Your task to perform on an android device: toggle javascript in the chrome app Image 0: 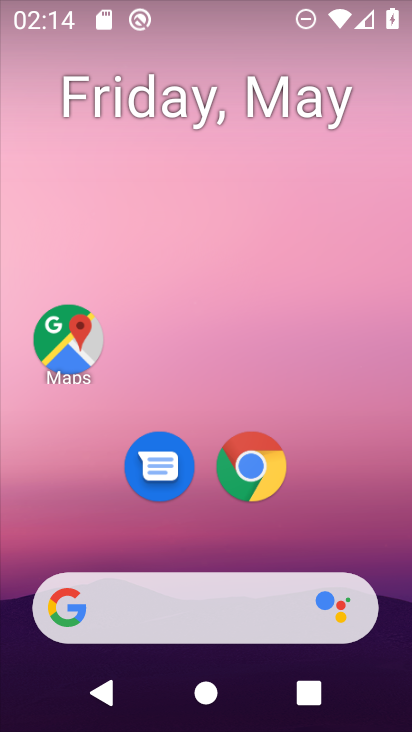
Step 0: drag from (314, 518) to (342, 139)
Your task to perform on an android device: toggle javascript in the chrome app Image 1: 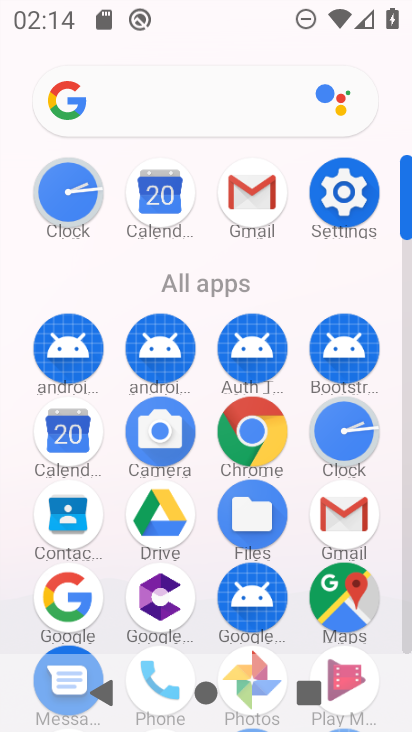
Step 1: click (341, 216)
Your task to perform on an android device: toggle javascript in the chrome app Image 2: 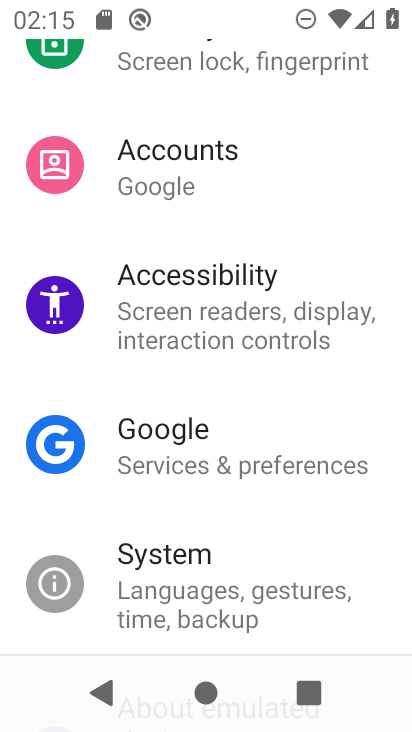
Step 2: drag from (215, 365) to (216, 495)
Your task to perform on an android device: toggle javascript in the chrome app Image 3: 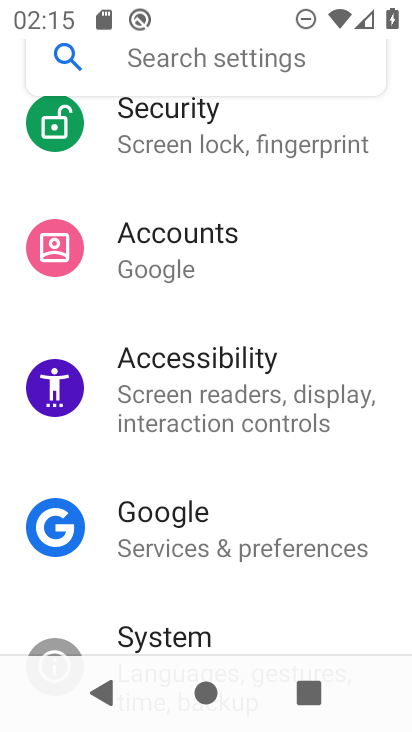
Step 3: press home button
Your task to perform on an android device: toggle javascript in the chrome app Image 4: 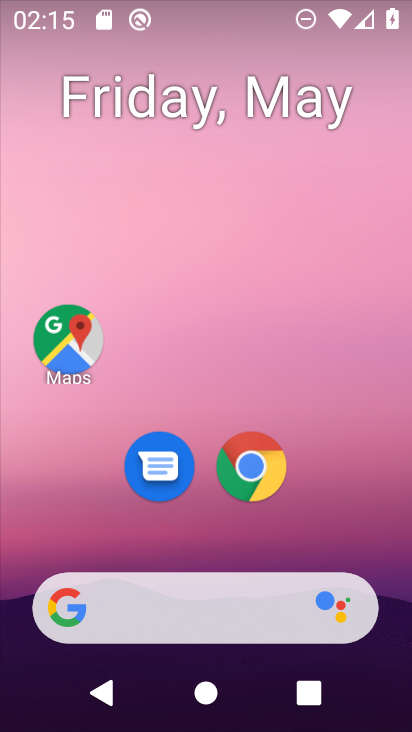
Step 4: click (250, 471)
Your task to perform on an android device: toggle javascript in the chrome app Image 5: 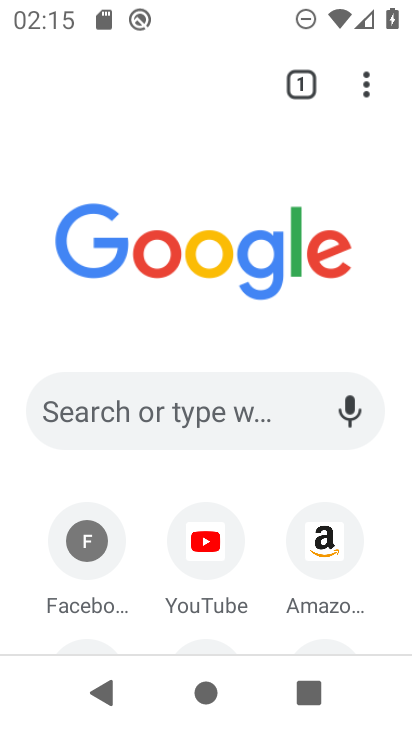
Step 5: click (362, 92)
Your task to perform on an android device: toggle javascript in the chrome app Image 6: 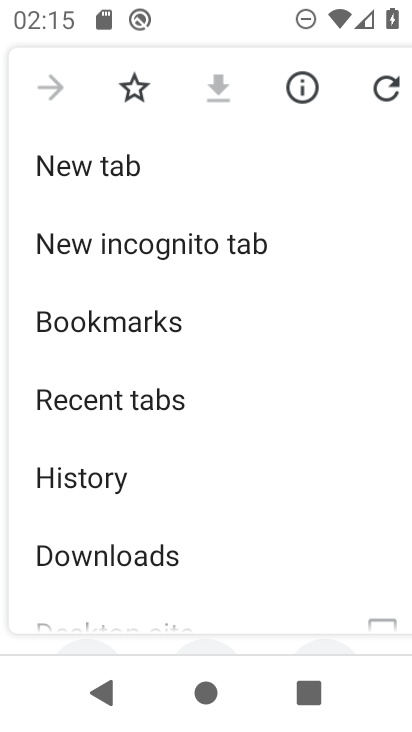
Step 6: drag from (197, 559) to (232, 324)
Your task to perform on an android device: toggle javascript in the chrome app Image 7: 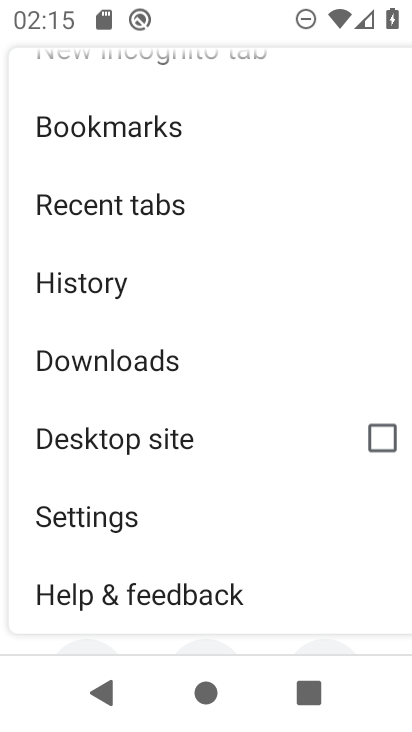
Step 7: click (216, 520)
Your task to perform on an android device: toggle javascript in the chrome app Image 8: 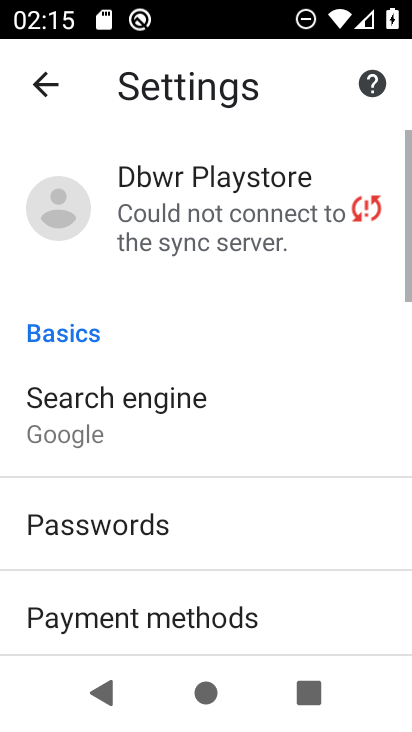
Step 8: drag from (178, 570) to (222, 223)
Your task to perform on an android device: toggle javascript in the chrome app Image 9: 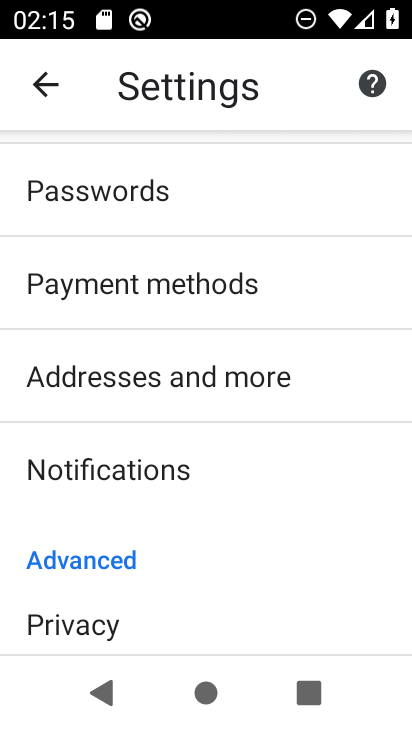
Step 9: drag from (220, 540) to (272, 227)
Your task to perform on an android device: toggle javascript in the chrome app Image 10: 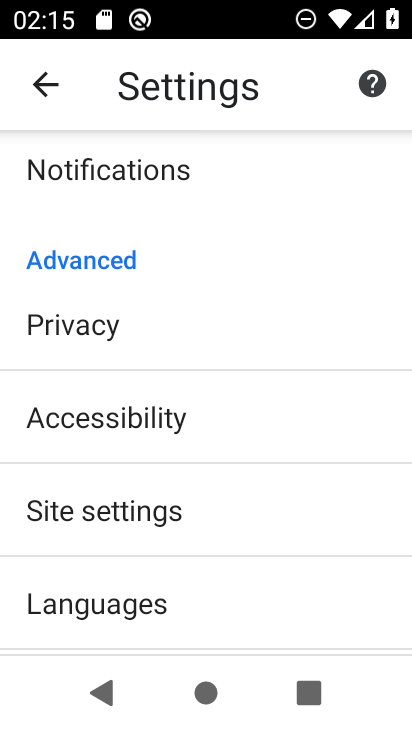
Step 10: click (234, 525)
Your task to perform on an android device: toggle javascript in the chrome app Image 11: 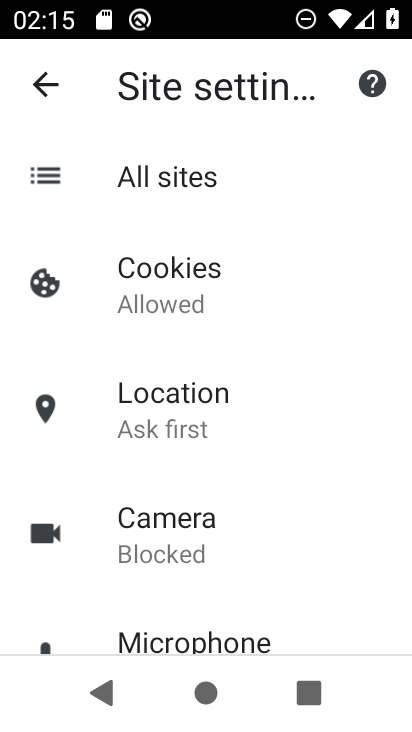
Step 11: drag from (168, 574) to (199, 292)
Your task to perform on an android device: toggle javascript in the chrome app Image 12: 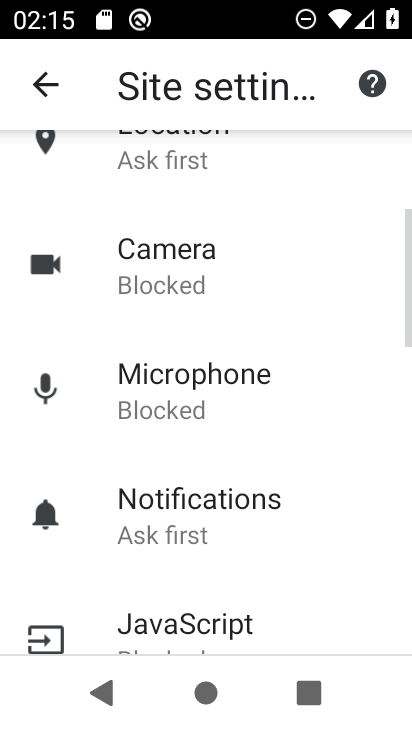
Step 12: click (199, 620)
Your task to perform on an android device: toggle javascript in the chrome app Image 13: 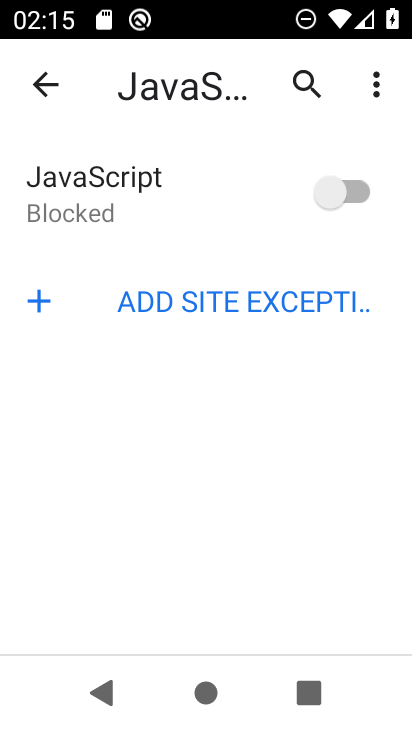
Step 13: click (326, 210)
Your task to perform on an android device: toggle javascript in the chrome app Image 14: 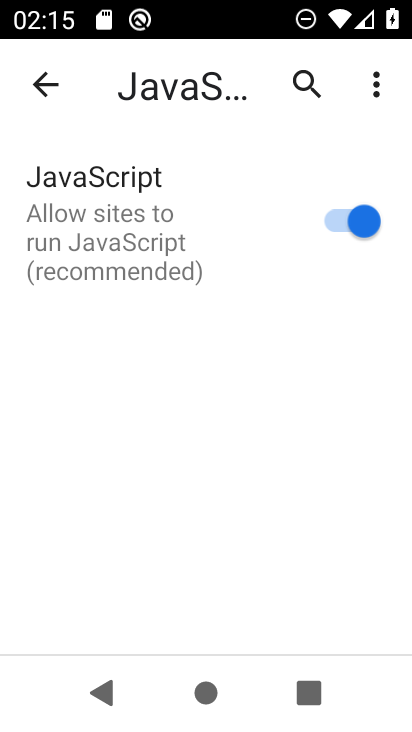
Step 14: task complete